Your task to perform on an android device: change the clock display to analog Image 0: 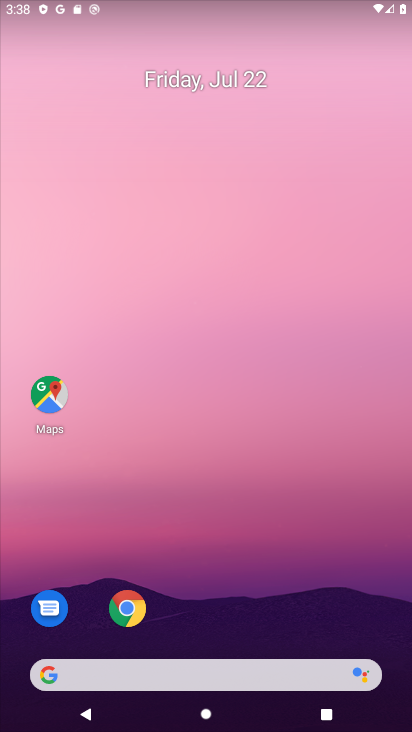
Step 0: drag from (249, 641) to (262, 115)
Your task to perform on an android device: change the clock display to analog Image 1: 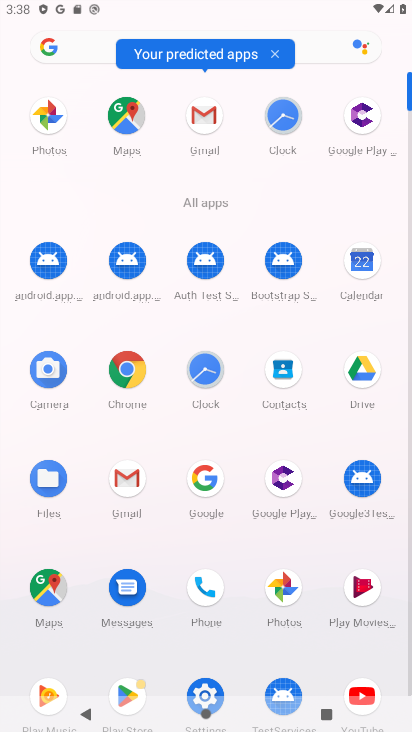
Step 1: click (216, 147)
Your task to perform on an android device: change the clock display to analog Image 2: 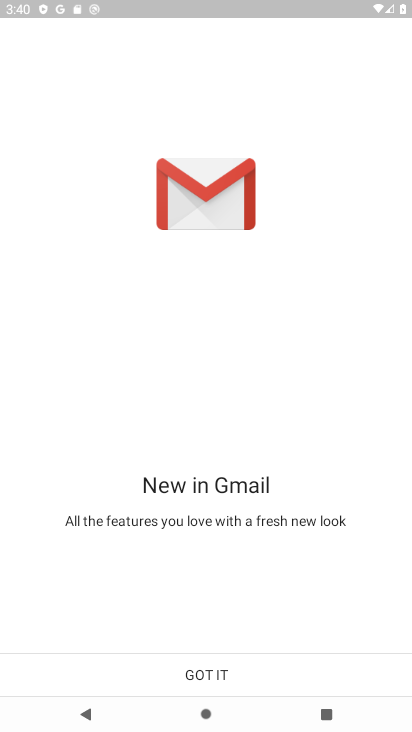
Step 2: task complete